Your task to perform on an android device: Show the shopping cart on newegg.com. Add usb-c to the cart on newegg.com Image 0: 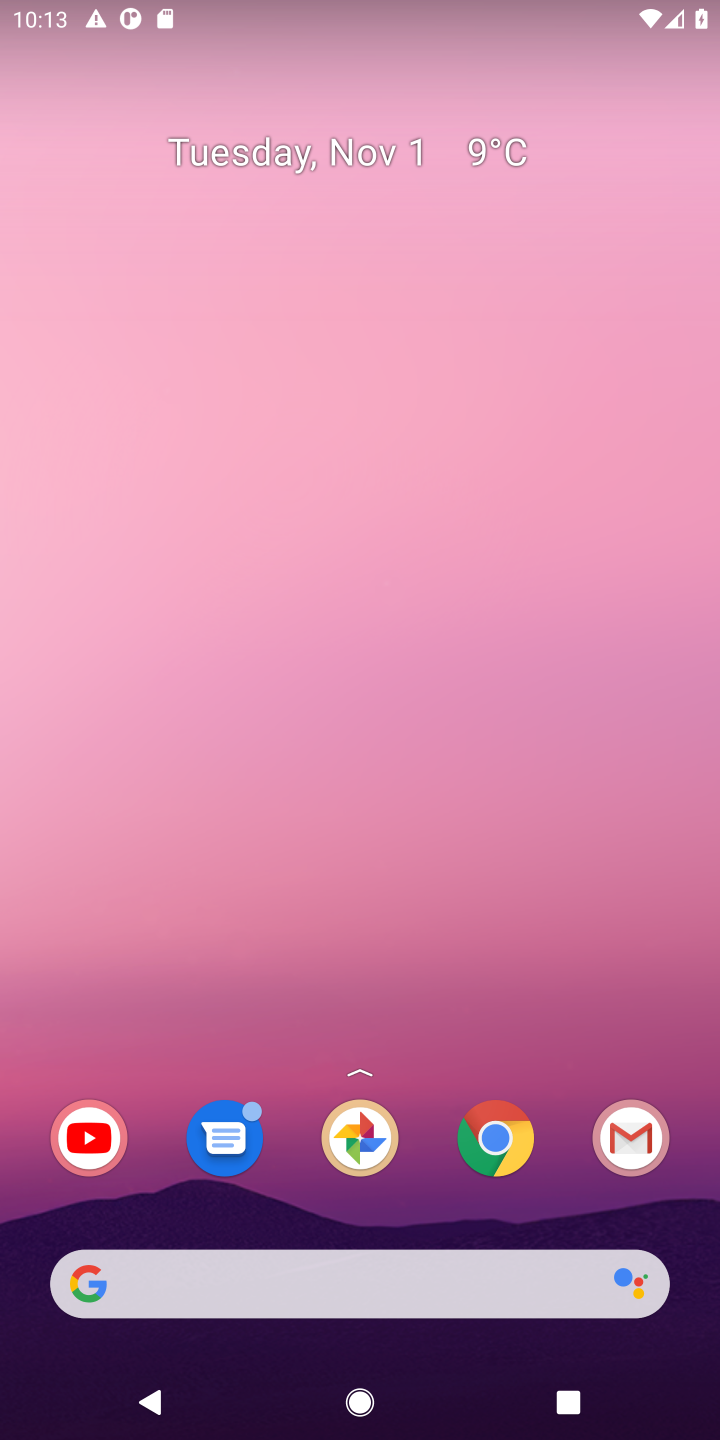
Step 0: press home button
Your task to perform on an android device: Show the shopping cart on newegg.com. Add usb-c to the cart on newegg.com Image 1: 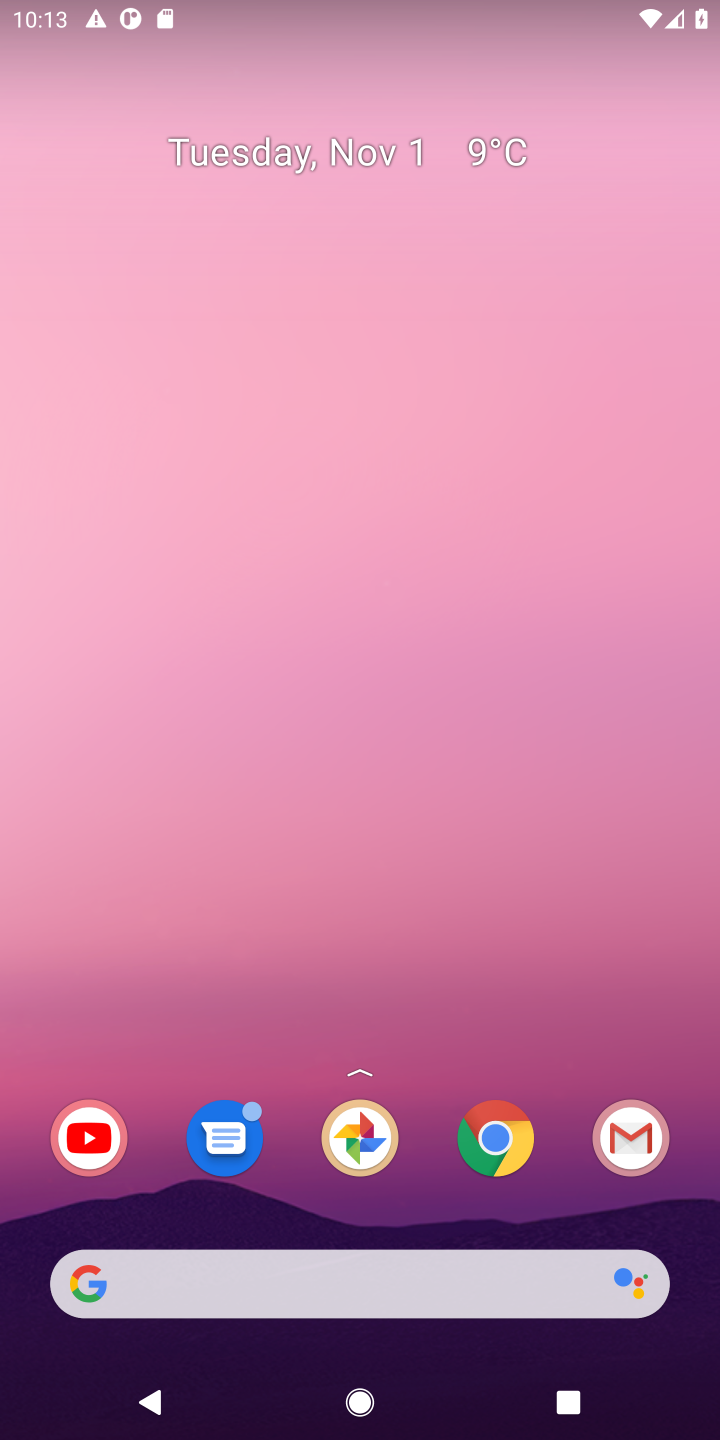
Step 1: drag from (406, 1064) to (418, 45)
Your task to perform on an android device: Show the shopping cart on newegg.com. Add usb-c to the cart on newegg.com Image 2: 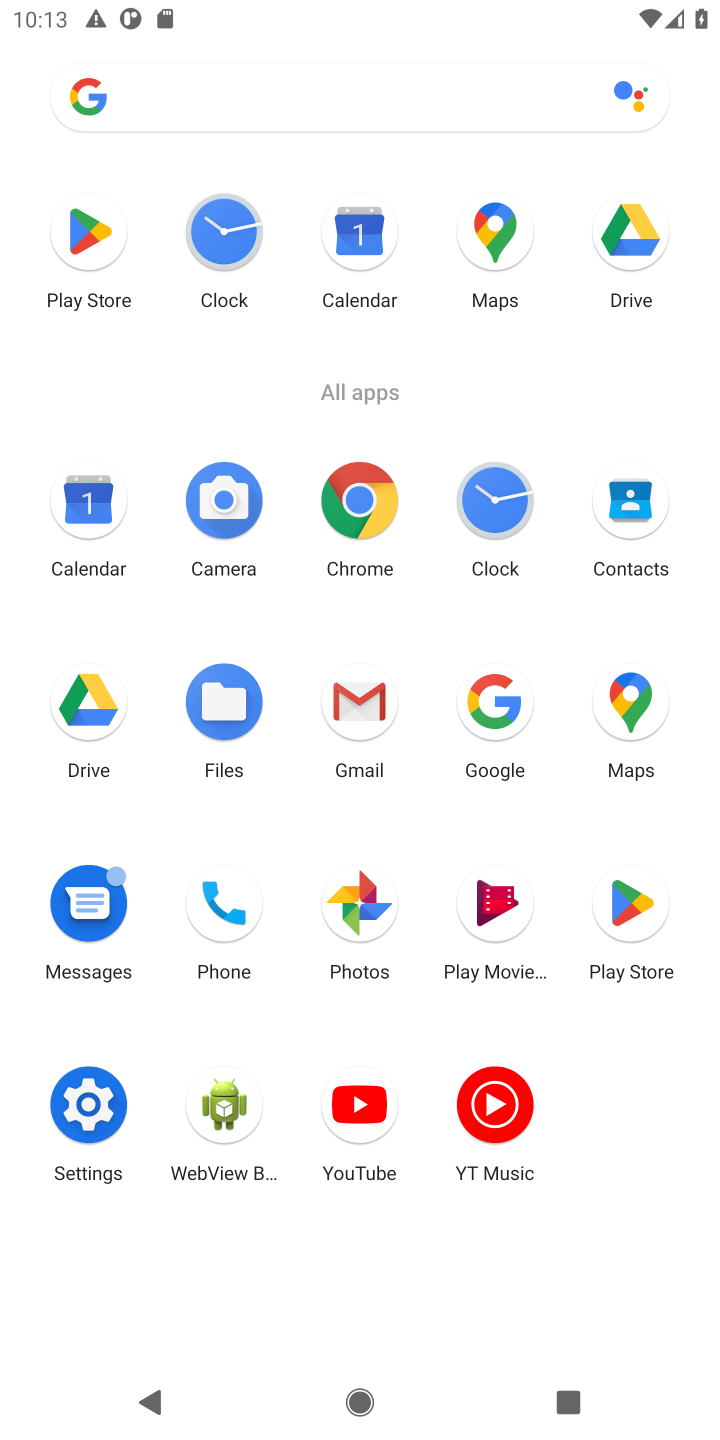
Step 2: click (355, 497)
Your task to perform on an android device: Show the shopping cart on newegg.com. Add usb-c to the cart on newegg.com Image 3: 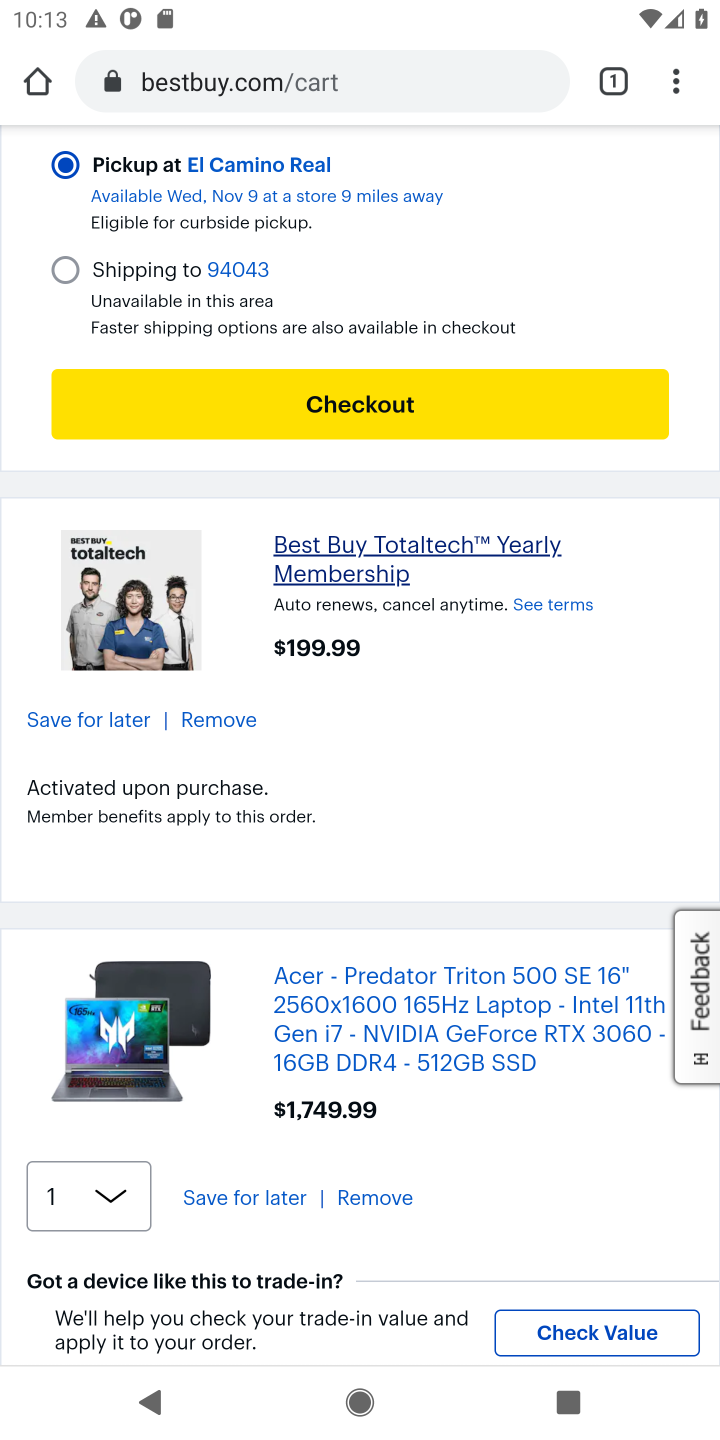
Step 3: click (291, 74)
Your task to perform on an android device: Show the shopping cart on newegg.com. Add usb-c to the cart on newegg.com Image 4: 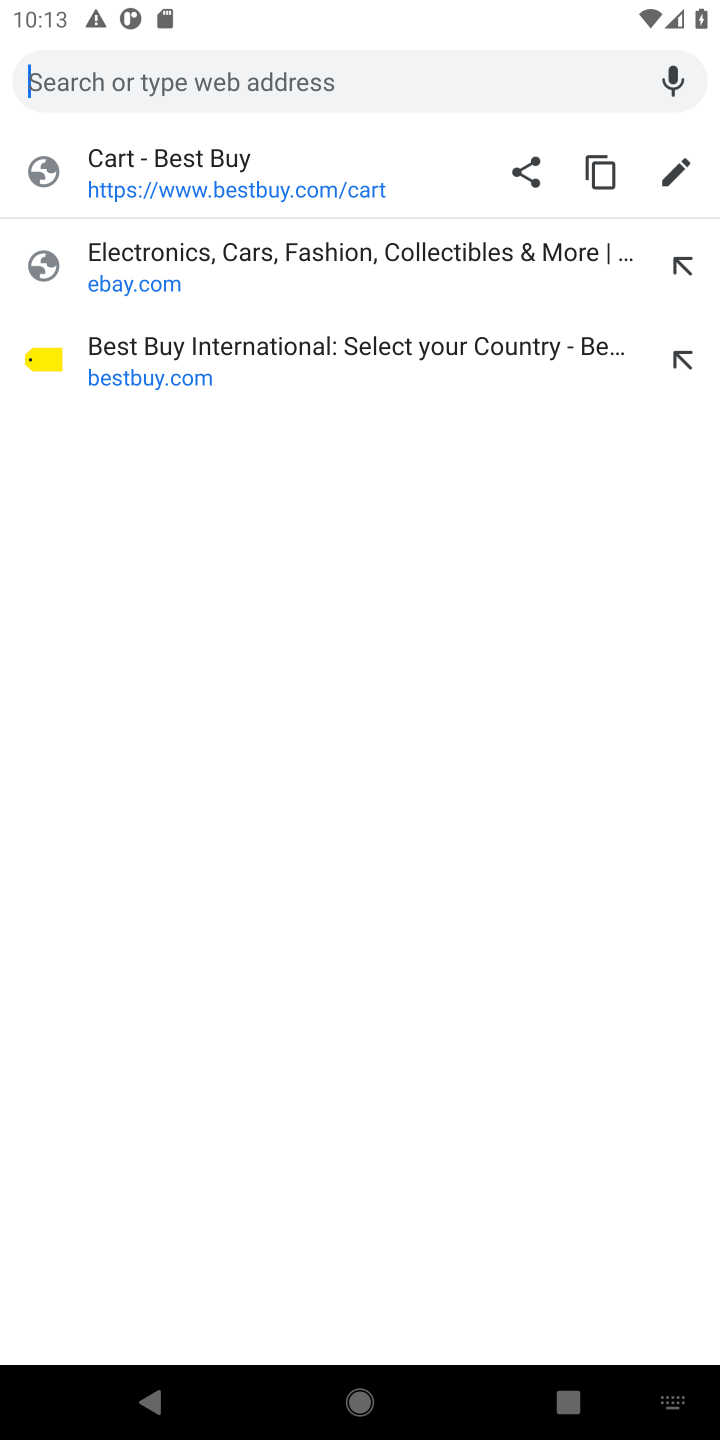
Step 4: click (170, 70)
Your task to perform on an android device: Show the shopping cart on newegg.com. Add usb-c to the cart on newegg.com Image 5: 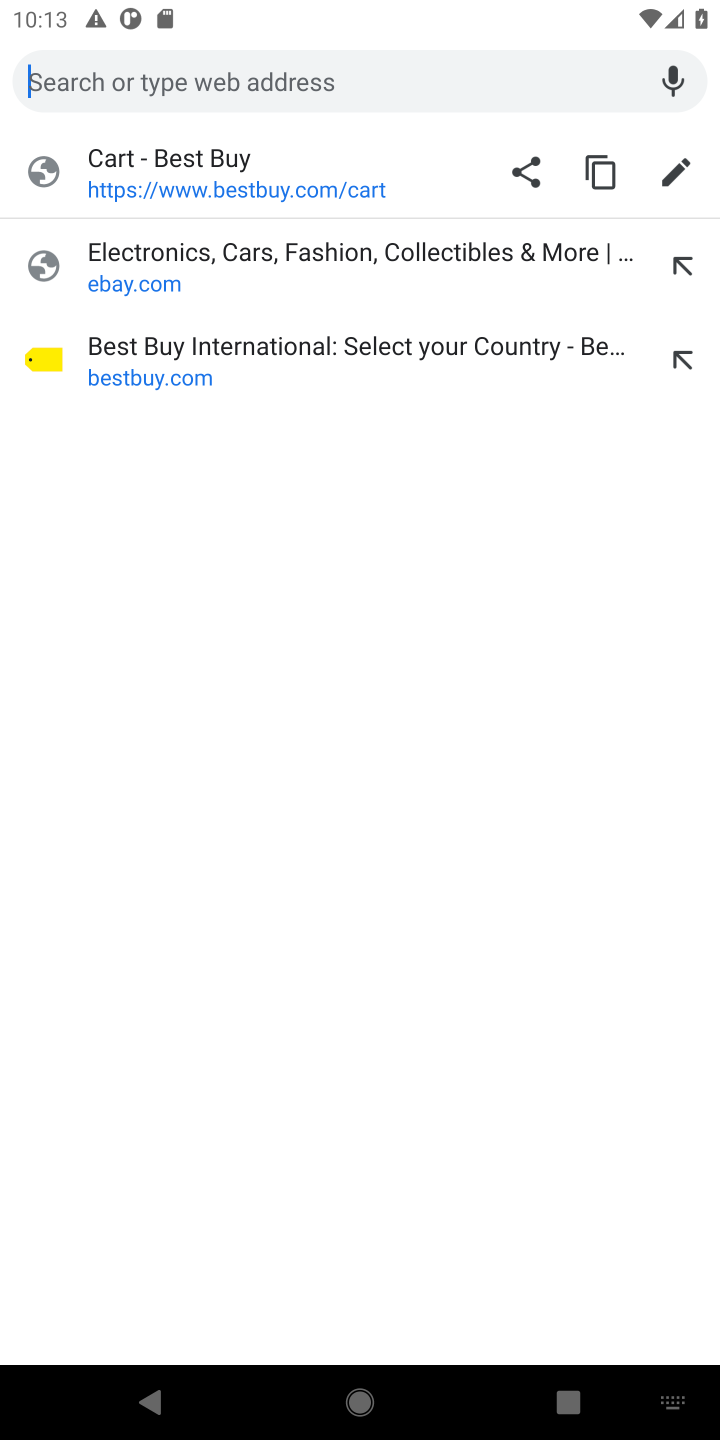
Step 5: type "newegg"
Your task to perform on an android device: Show the shopping cart on newegg.com. Add usb-c to the cart on newegg.com Image 6: 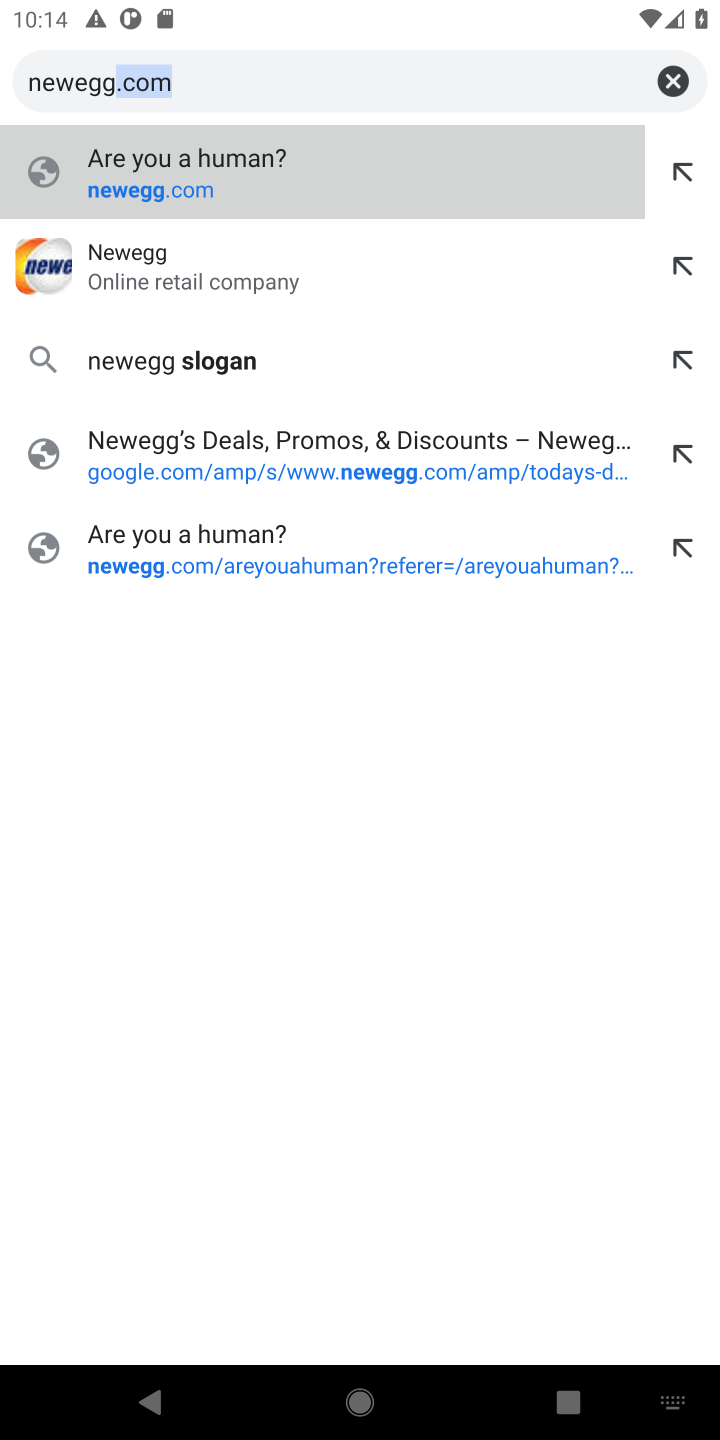
Step 6: click (163, 274)
Your task to perform on an android device: Show the shopping cart on newegg.com. Add usb-c to the cart on newegg.com Image 7: 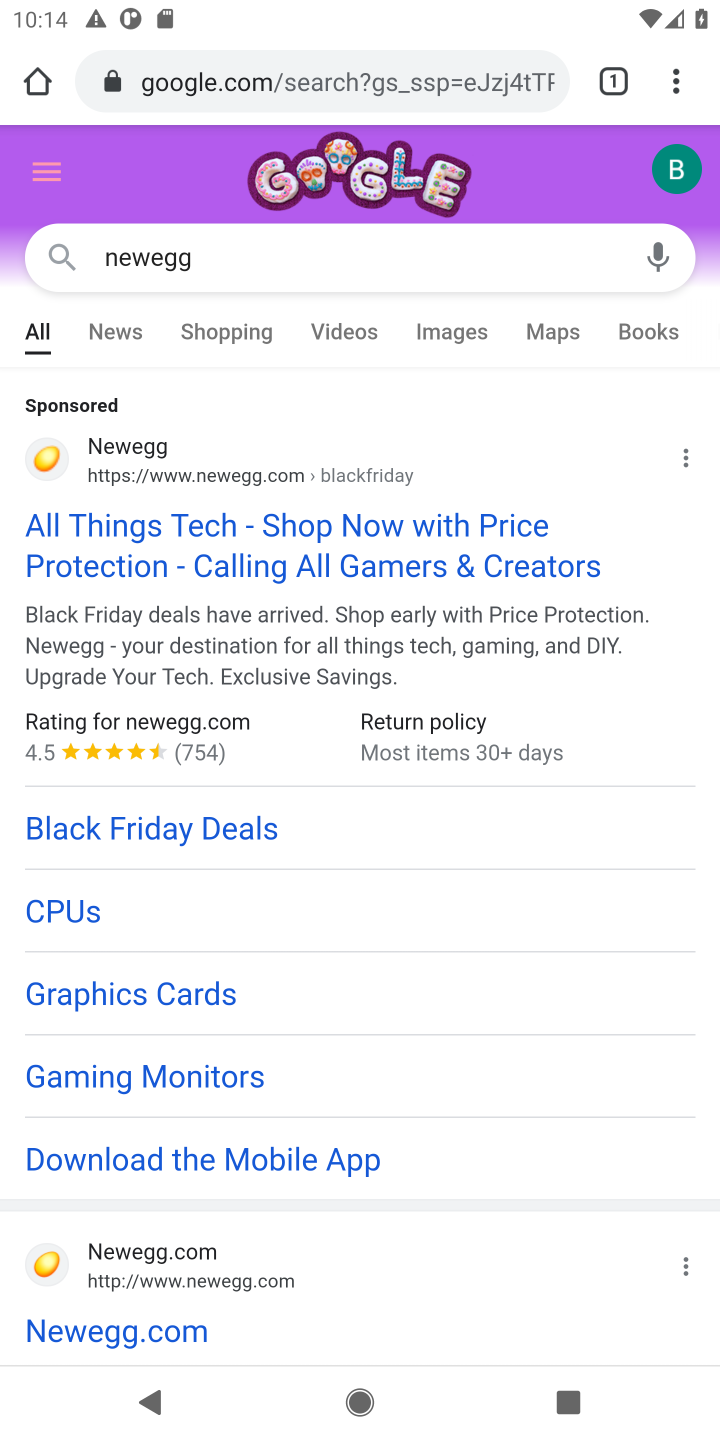
Step 7: click (153, 1336)
Your task to perform on an android device: Show the shopping cart on newegg.com. Add usb-c to the cart on newegg.com Image 8: 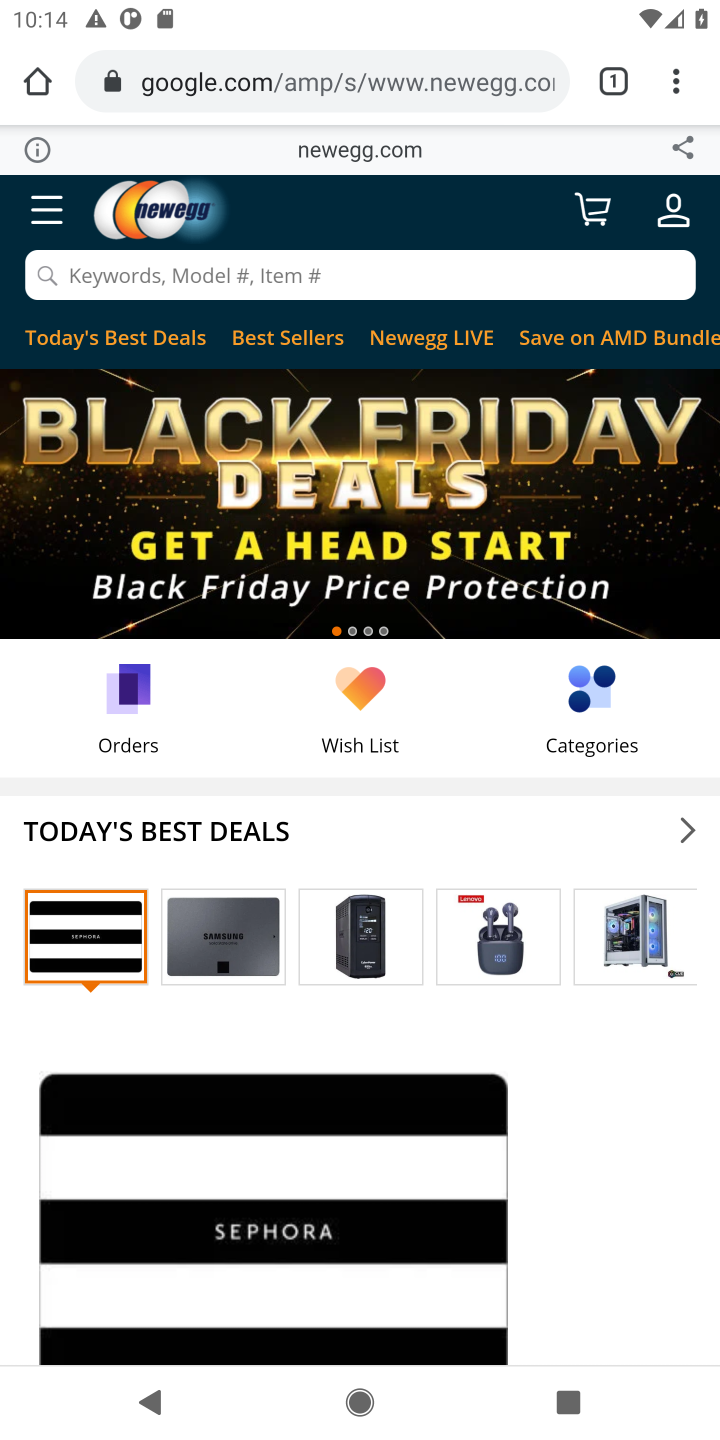
Step 8: click (138, 276)
Your task to perform on an android device: Show the shopping cart on newegg.com. Add usb-c to the cart on newegg.com Image 9: 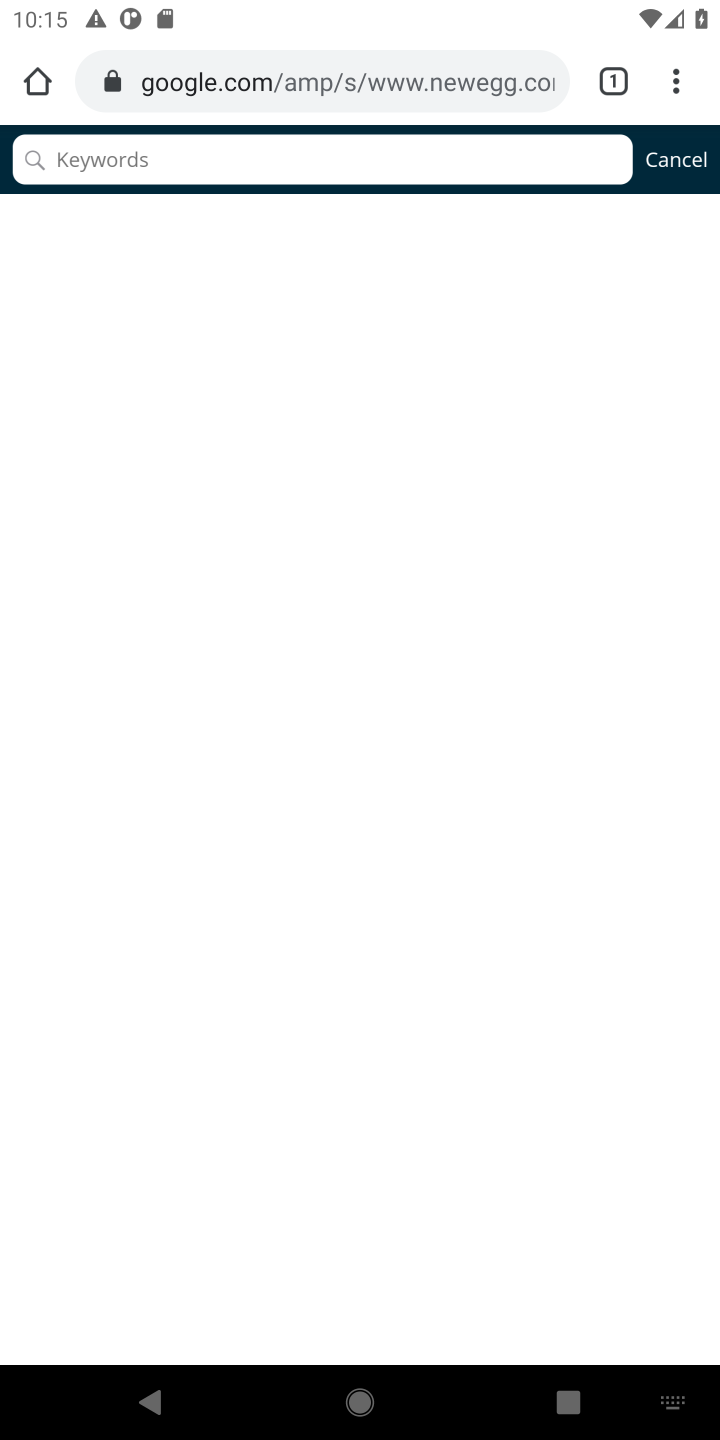
Step 9: type "usb-c"
Your task to perform on an android device: Show the shopping cart on newegg.com. Add usb-c to the cart on newegg.com Image 10: 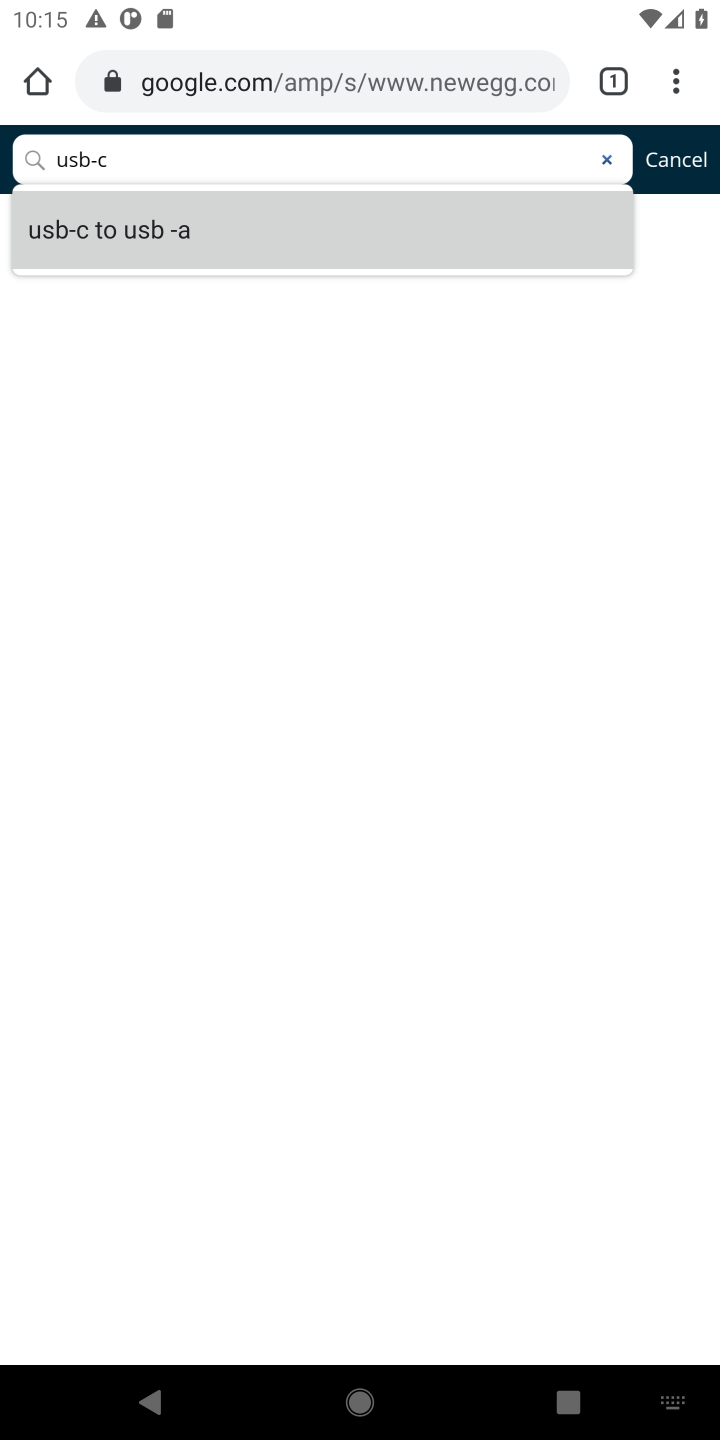
Step 10: click (179, 242)
Your task to perform on an android device: Show the shopping cart on newegg.com. Add usb-c to the cart on newegg.com Image 11: 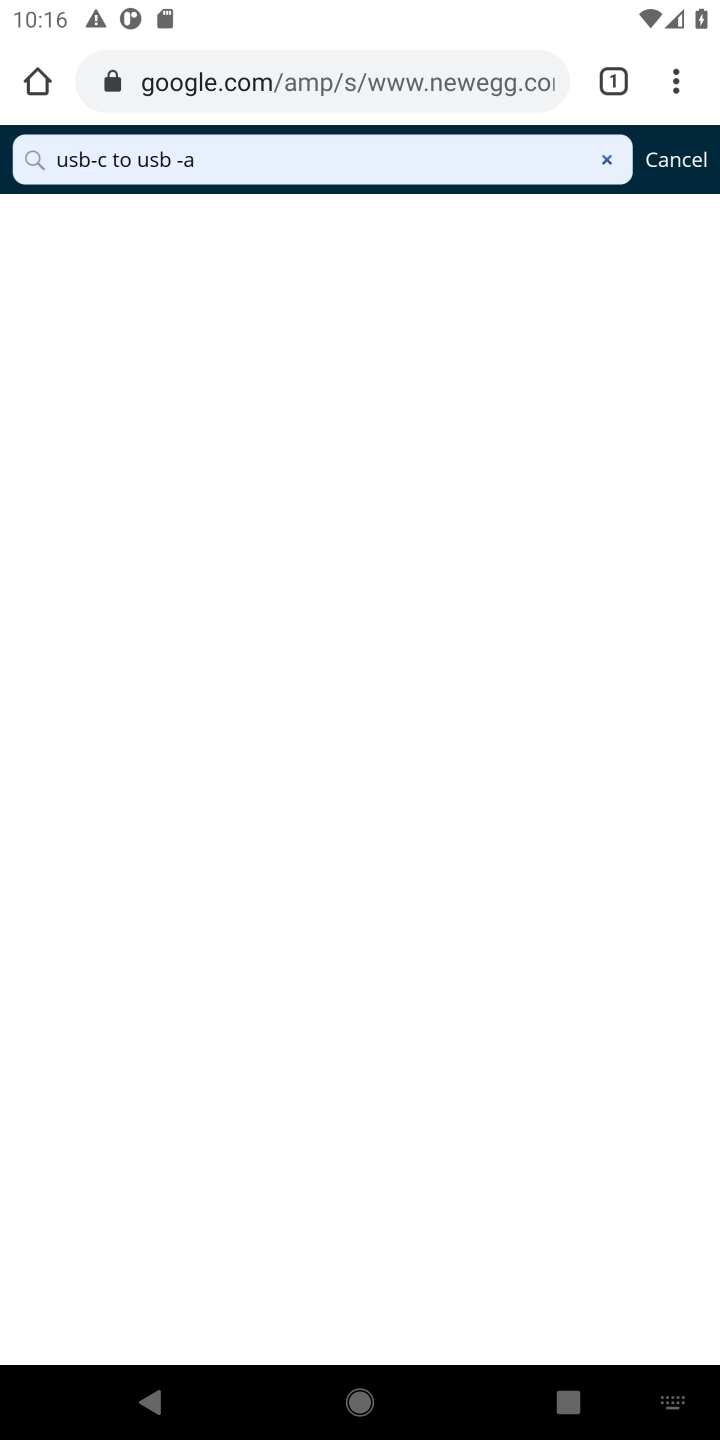
Step 11: task complete